Your task to perform on an android device: Open Google Chrome Image 0: 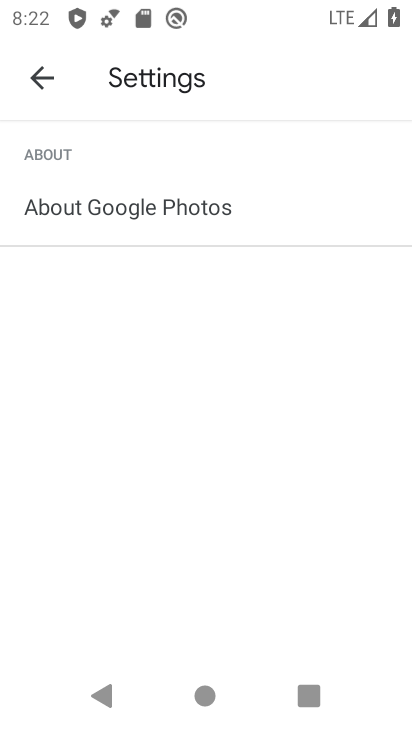
Step 0: press home button
Your task to perform on an android device: Open Google Chrome Image 1: 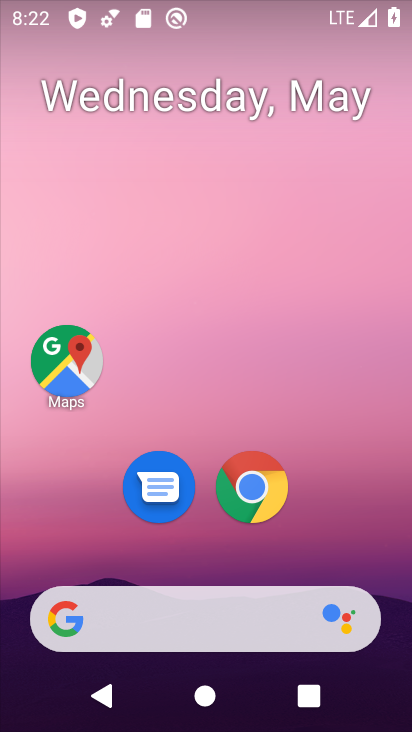
Step 1: click (267, 483)
Your task to perform on an android device: Open Google Chrome Image 2: 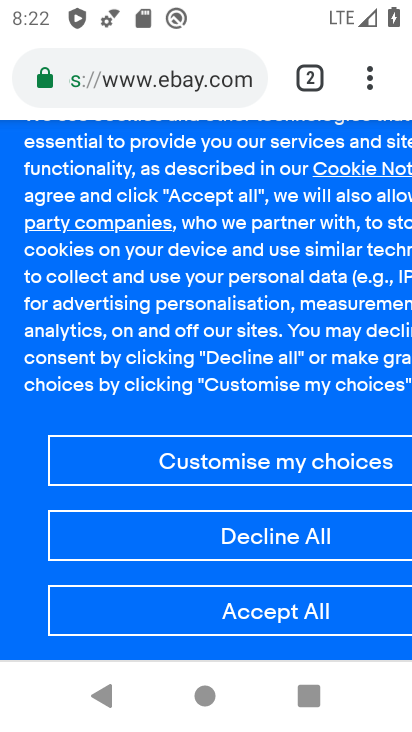
Step 2: task complete